Your task to perform on an android device: see tabs open on other devices in the chrome app Image 0: 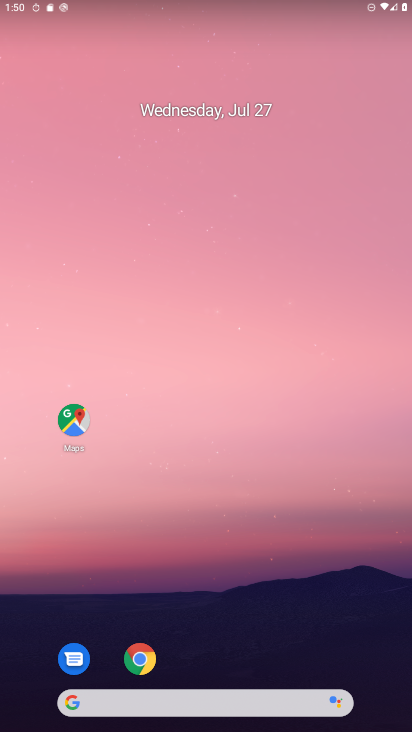
Step 0: drag from (258, 627) to (265, 76)
Your task to perform on an android device: see tabs open on other devices in the chrome app Image 1: 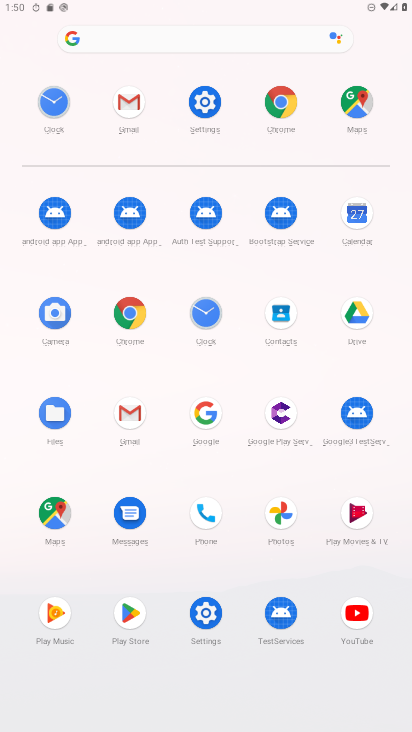
Step 1: click (282, 103)
Your task to perform on an android device: see tabs open on other devices in the chrome app Image 2: 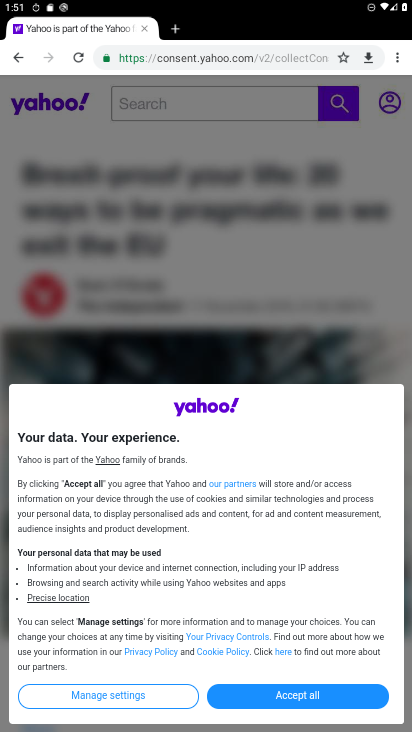
Step 2: task complete